Your task to perform on an android device: Open sound settings Image 0: 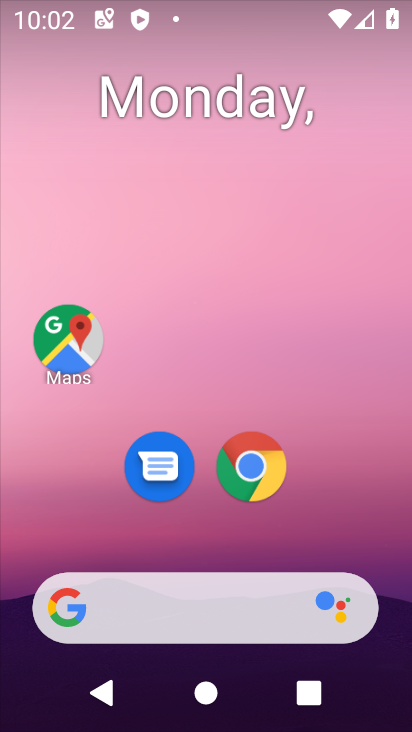
Step 0: drag from (203, 532) to (216, 208)
Your task to perform on an android device: Open sound settings Image 1: 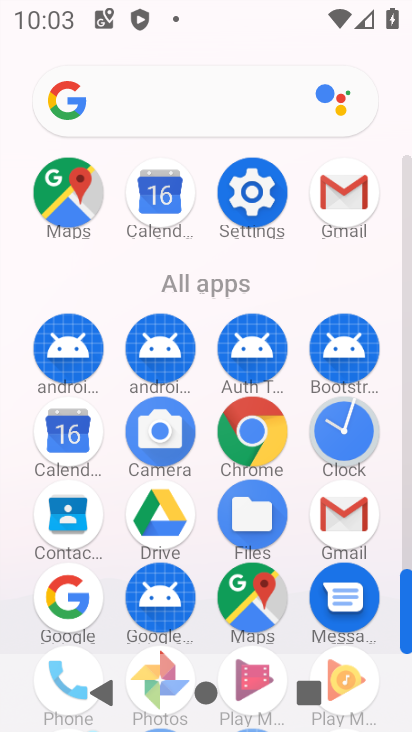
Step 1: click (246, 191)
Your task to perform on an android device: Open sound settings Image 2: 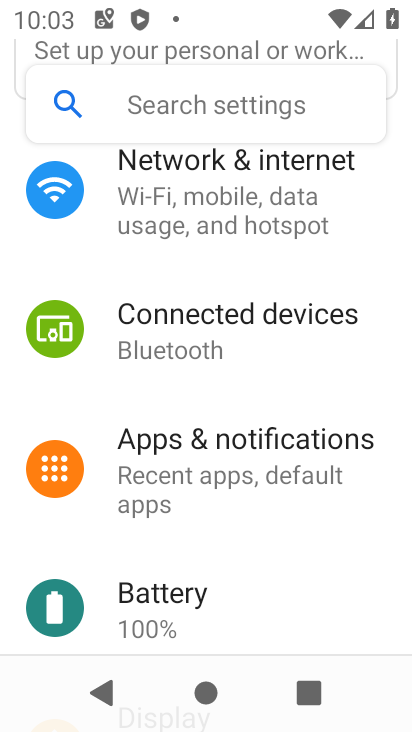
Step 2: drag from (219, 488) to (313, 135)
Your task to perform on an android device: Open sound settings Image 3: 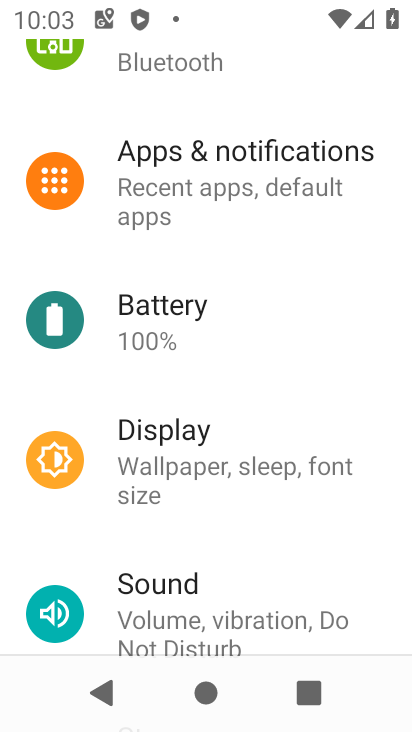
Step 3: click (196, 598)
Your task to perform on an android device: Open sound settings Image 4: 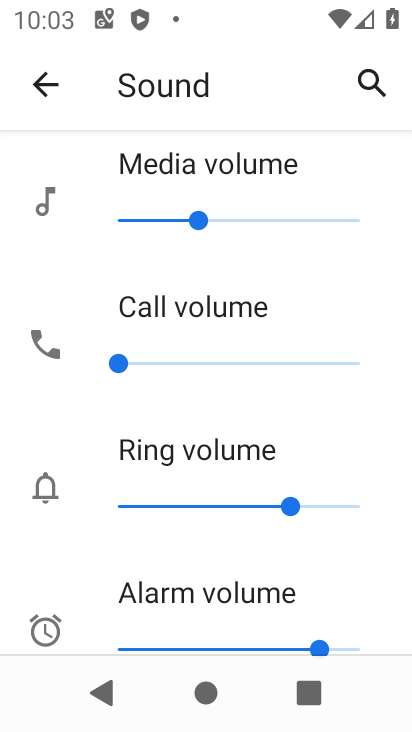
Step 4: task complete